Your task to perform on an android device: clear history in the chrome app Image 0: 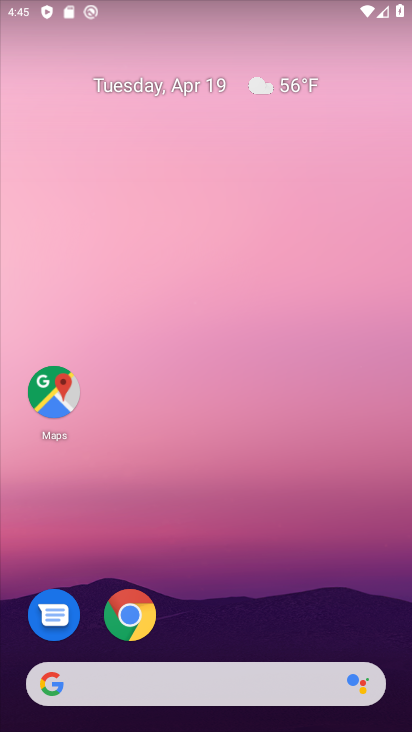
Step 0: click (130, 613)
Your task to perform on an android device: clear history in the chrome app Image 1: 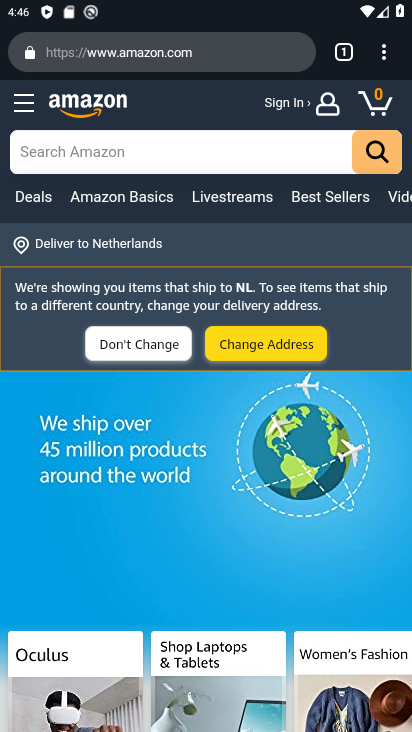
Step 1: click (380, 62)
Your task to perform on an android device: clear history in the chrome app Image 2: 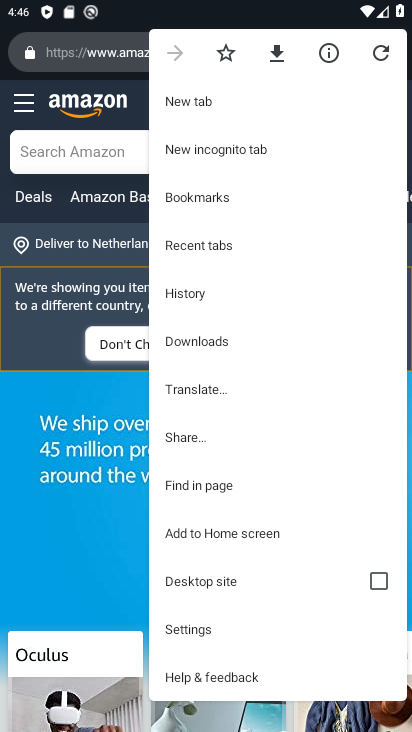
Step 2: click (183, 292)
Your task to perform on an android device: clear history in the chrome app Image 3: 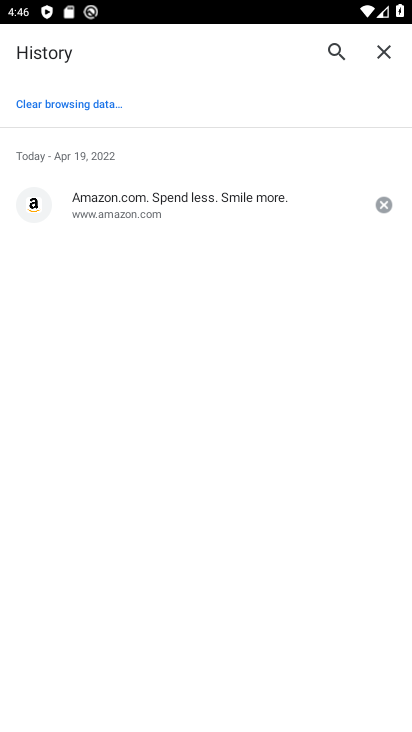
Step 3: click (62, 97)
Your task to perform on an android device: clear history in the chrome app Image 4: 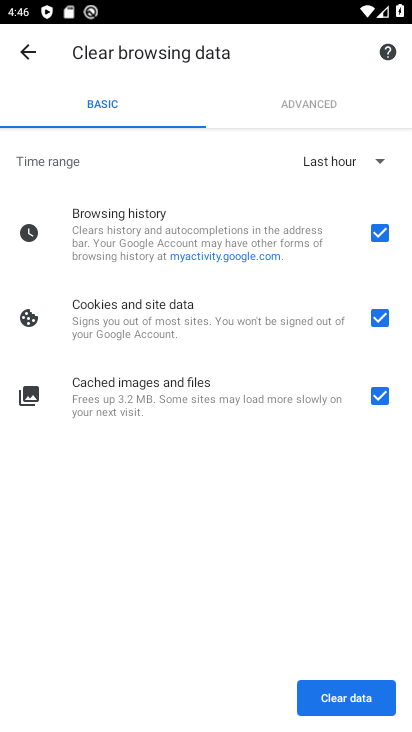
Step 4: click (374, 313)
Your task to perform on an android device: clear history in the chrome app Image 5: 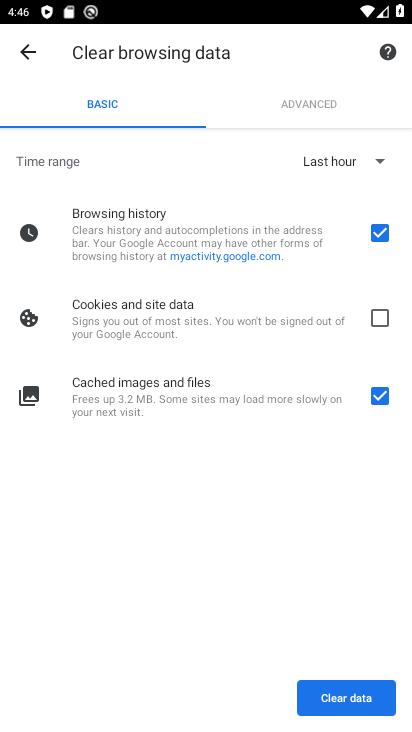
Step 5: click (376, 392)
Your task to perform on an android device: clear history in the chrome app Image 6: 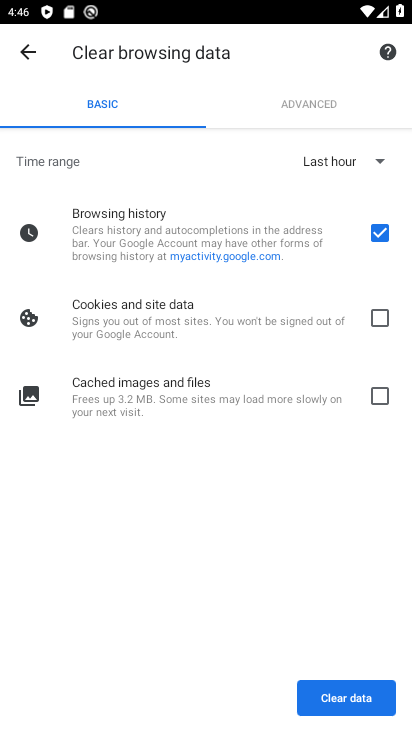
Step 6: click (332, 693)
Your task to perform on an android device: clear history in the chrome app Image 7: 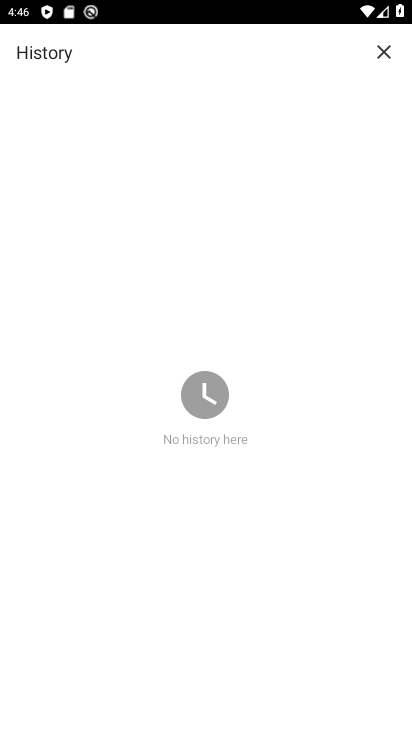
Step 7: task complete